Your task to perform on an android device: empty trash in google photos Image 0: 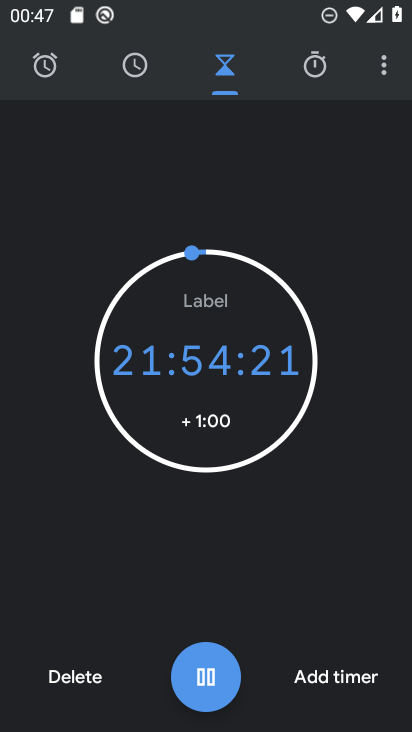
Step 0: press back button
Your task to perform on an android device: empty trash in google photos Image 1: 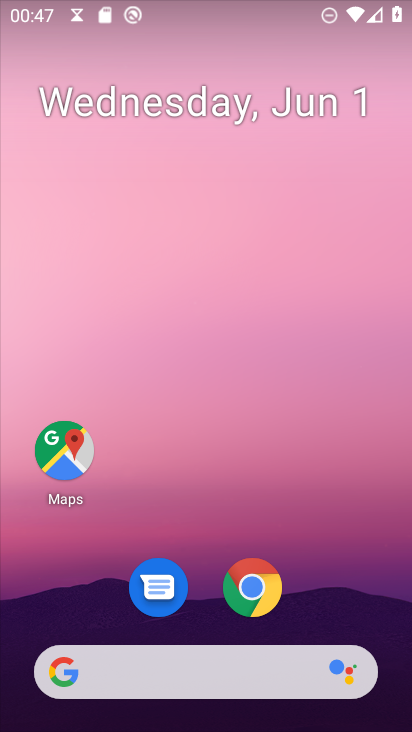
Step 1: drag from (307, 603) to (323, 39)
Your task to perform on an android device: empty trash in google photos Image 2: 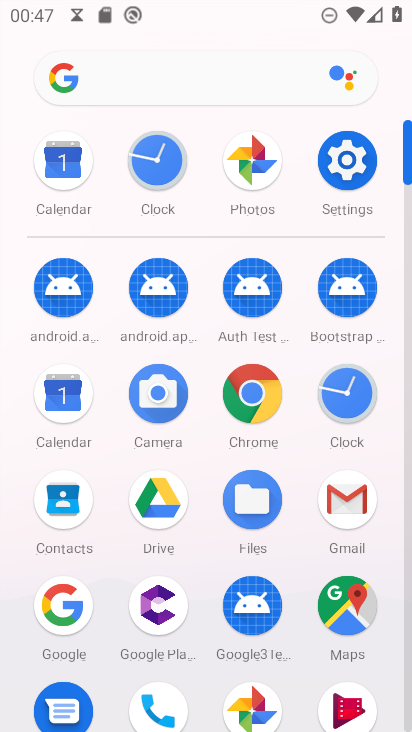
Step 2: click (265, 166)
Your task to perform on an android device: empty trash in google photos Image 3: 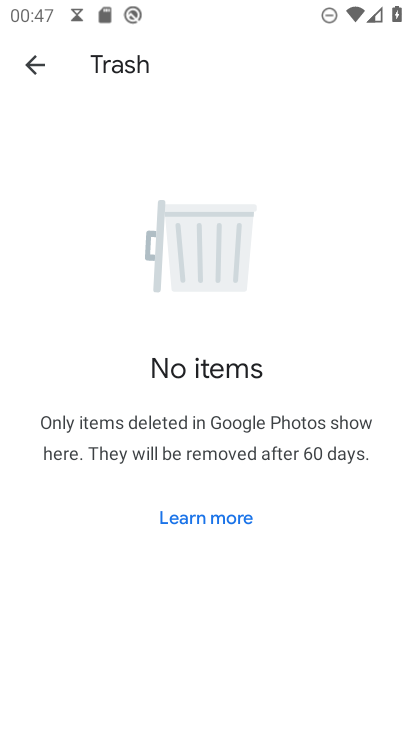
Step 3: task complete